Your task to perform on an android device: refresh tabs in the chrome app Image 0: 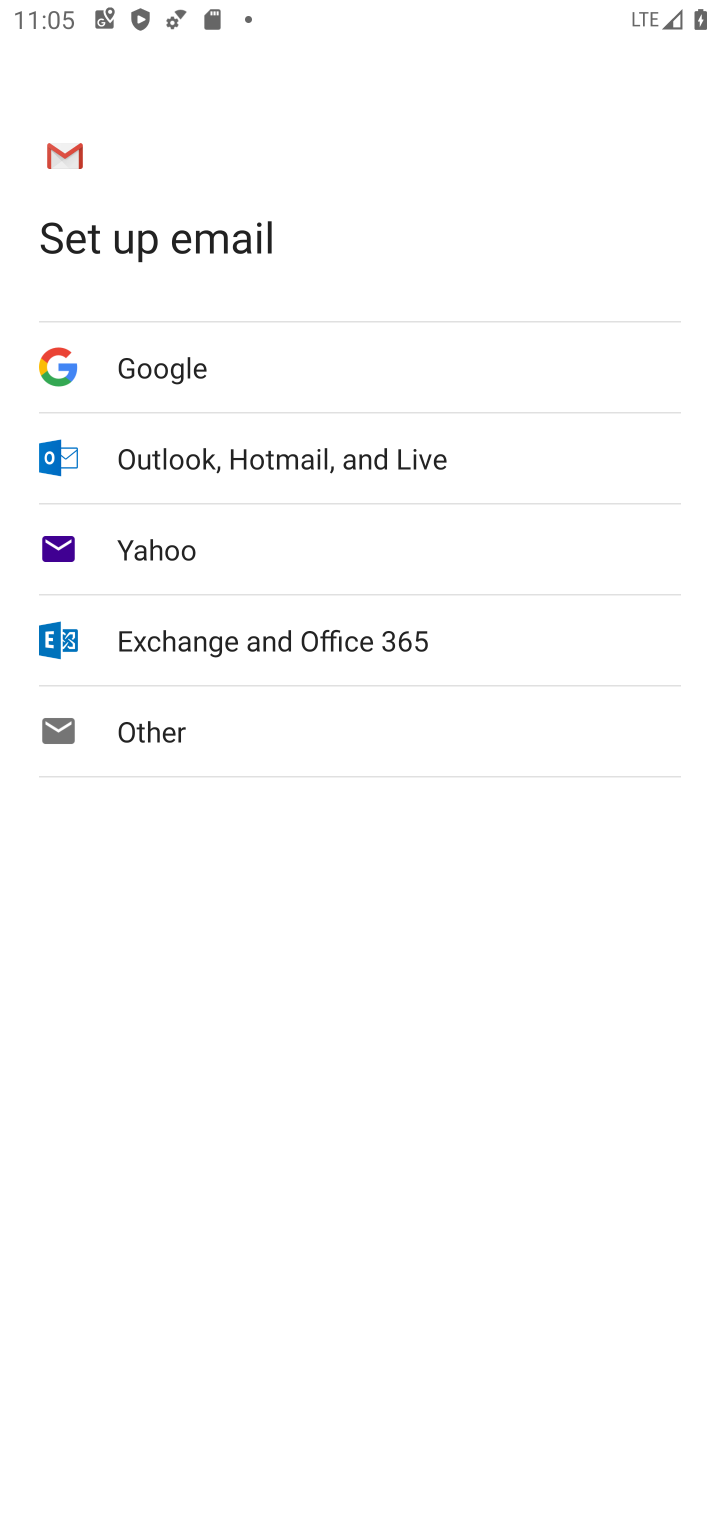
Step 0: press back button
Your task to perform on an android device: refresh tabs in the chrome app Image 1: 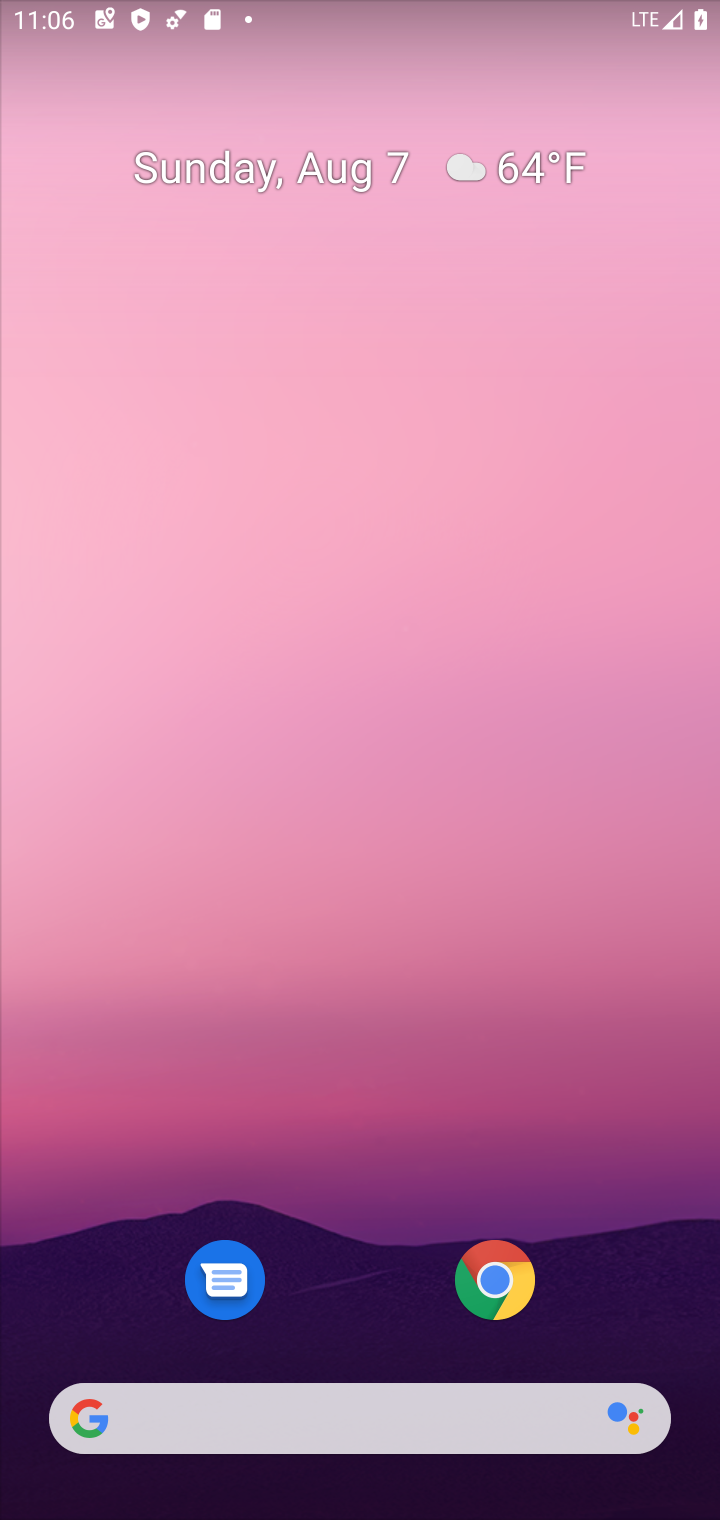
Step 1: click (462, 1283)
Your task to perform on an android device: refresh tabs in the chrome app Image 2: 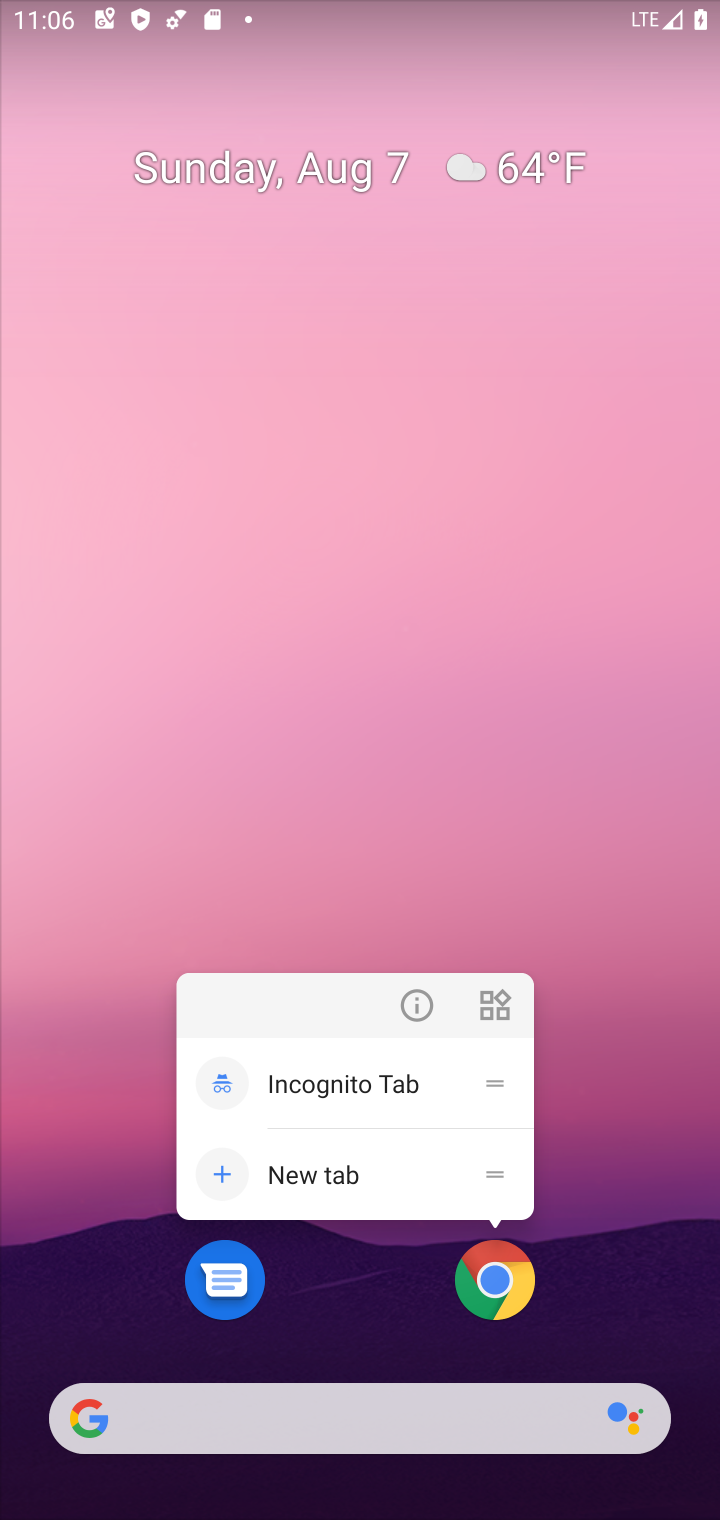
Step 2: click (505, 1265)
Your task to perform on an android device: refresh tabs in the chrome app Image 3: 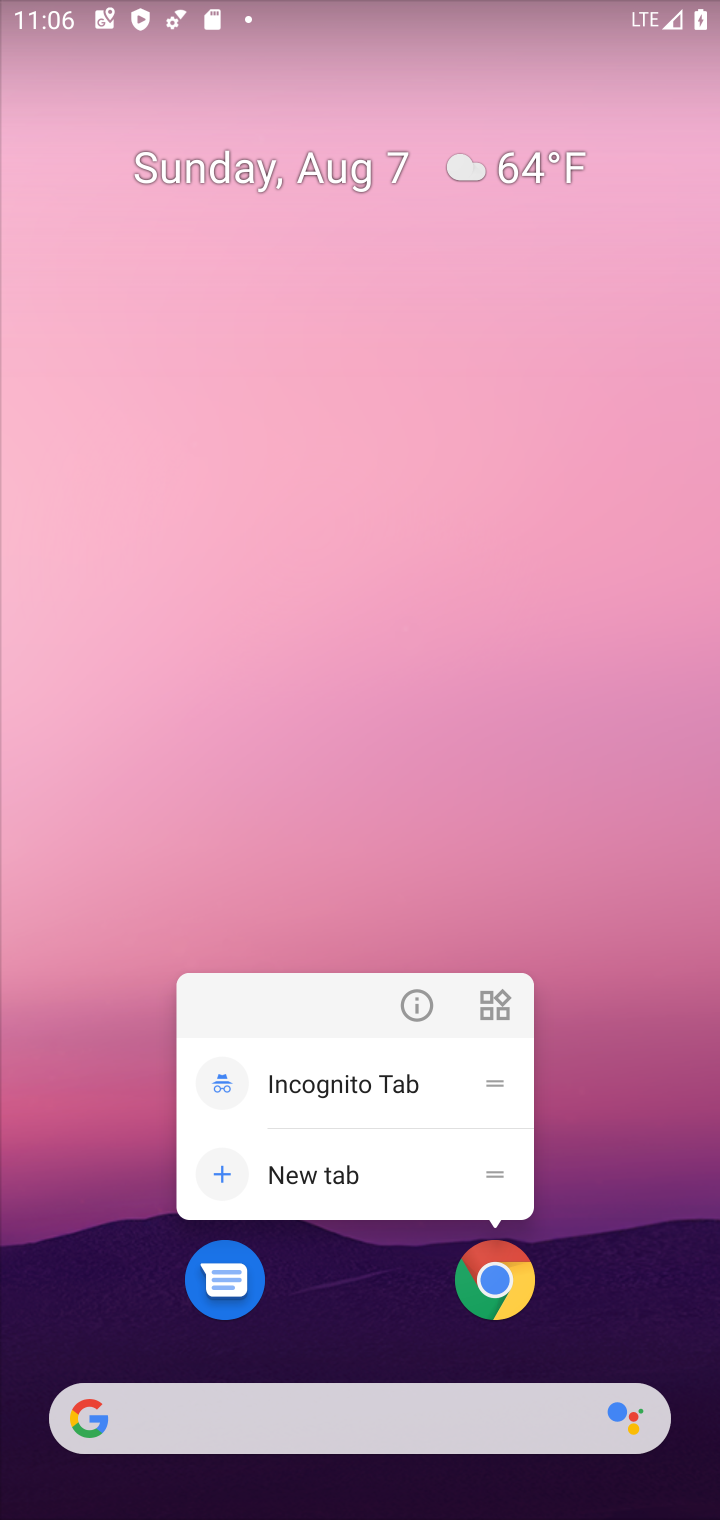
Step 3: click (505, 1265)
Your task to perform on an android device: refresh tabs in the chrome app Image 4: 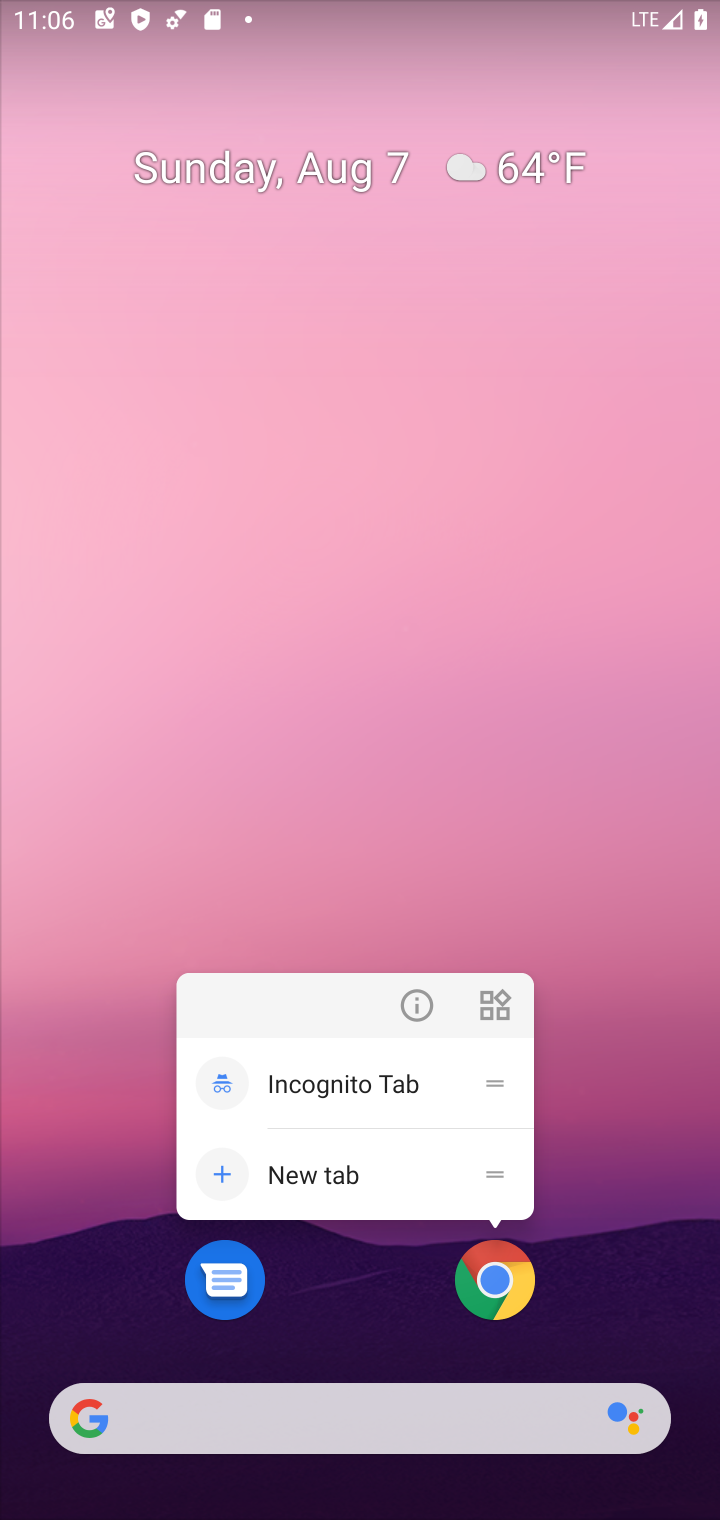
Step 4: click (511, 1273)
Your task to perform on an android device: refresh tabs in the chrome app Image 5: 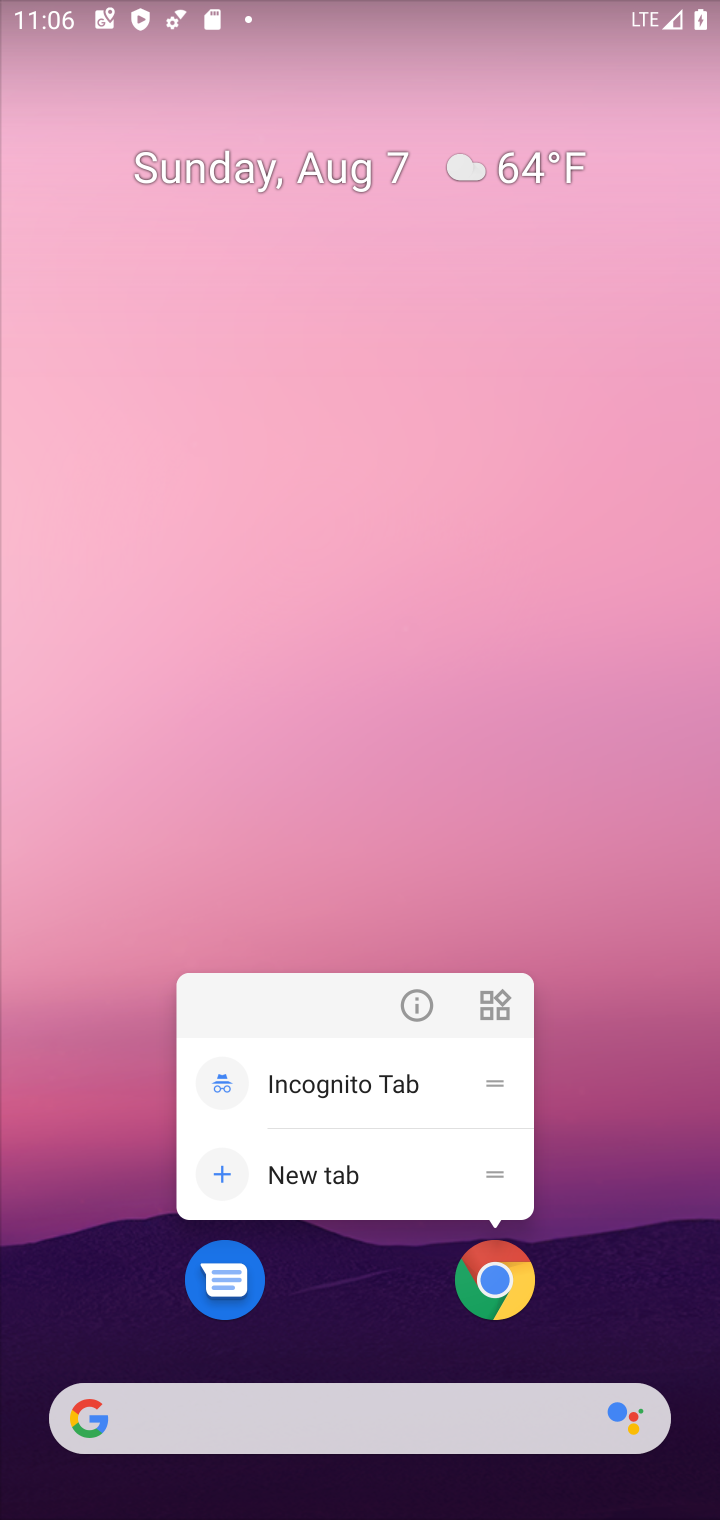
Step 5: click (498, 1296)
Your task to perform on an android device: refresh tabs in the chrome app Image 6: 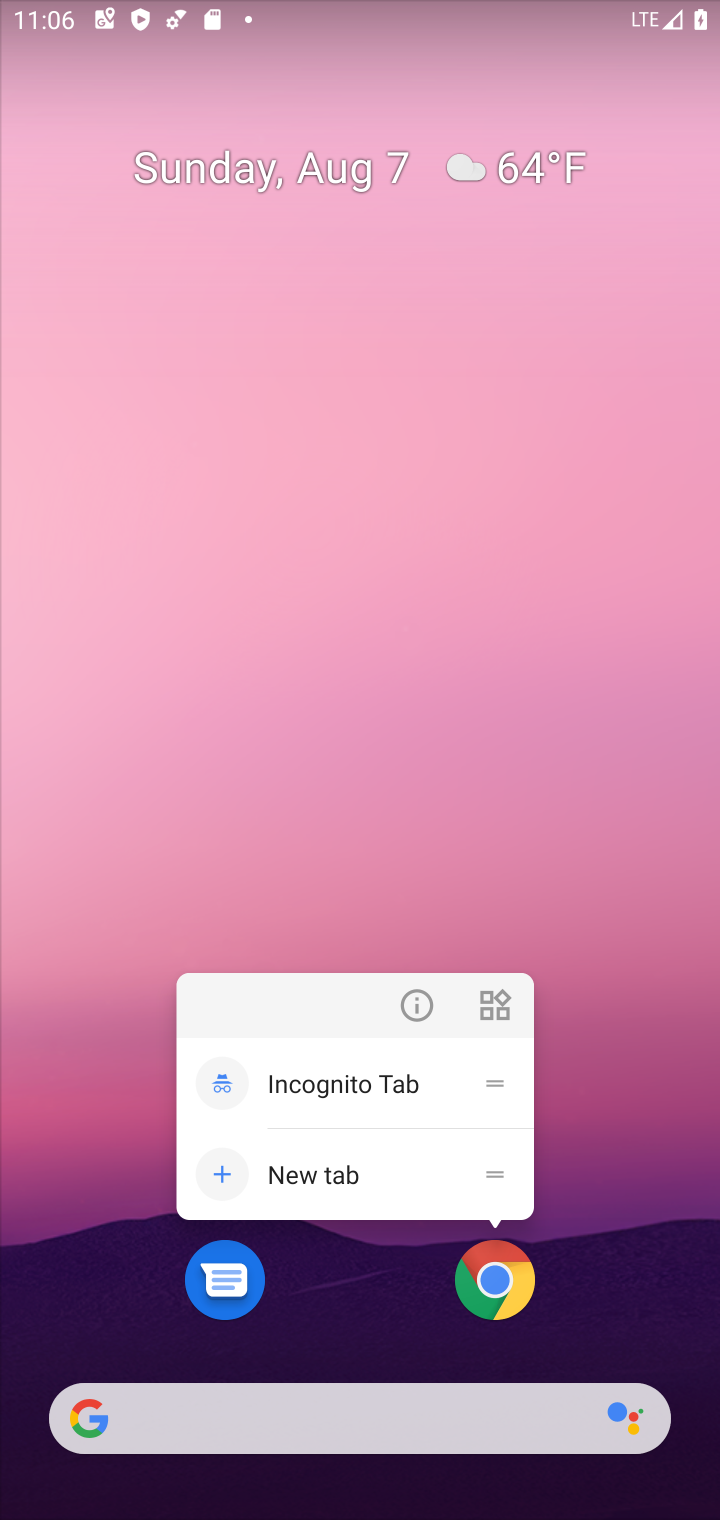
Step 6: click (490, 1283)
Your task to perform on an android device: refresh tabs in the chrome app Image 7: 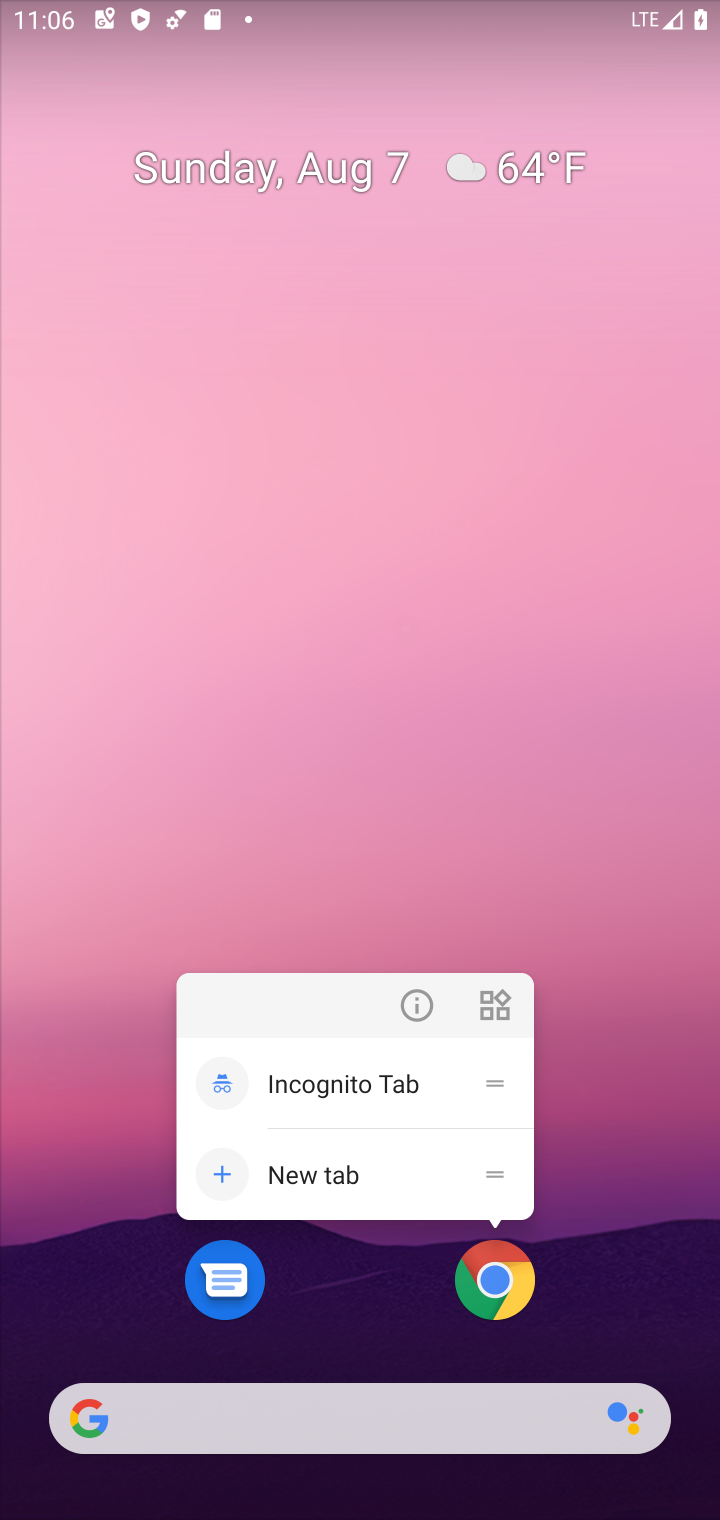
Step 7: task complete